Your task to perform on an android device: Open the stopwatch Image 0: 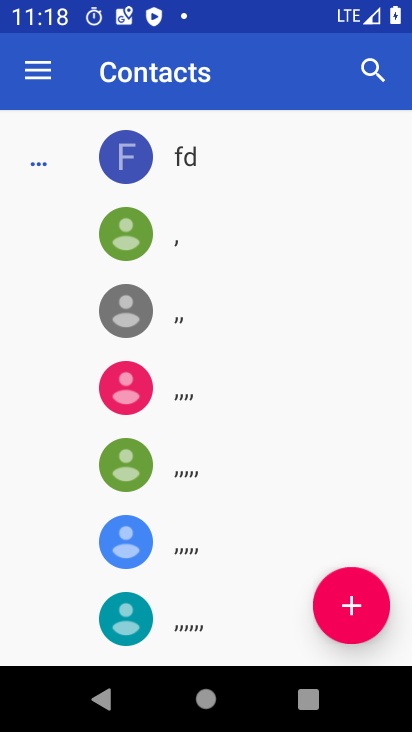
Step 0: press home button
Your task to perform on an android device: Open the stopwatch Image 1: 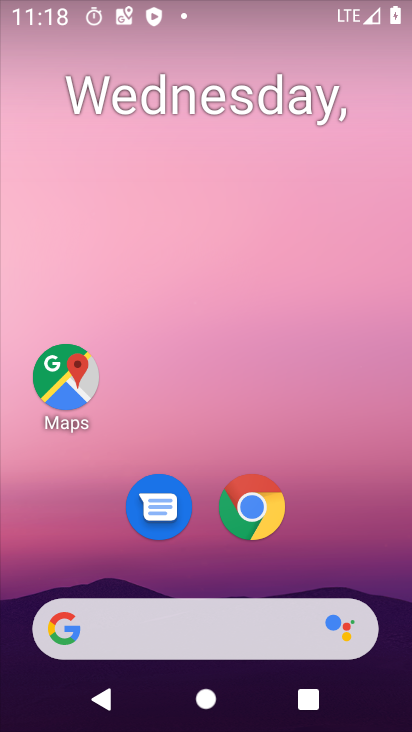
Step 1: drag from (228, 693) to (228, 148)
Your task to perform on an android device: Open the stopwatch Image 2: 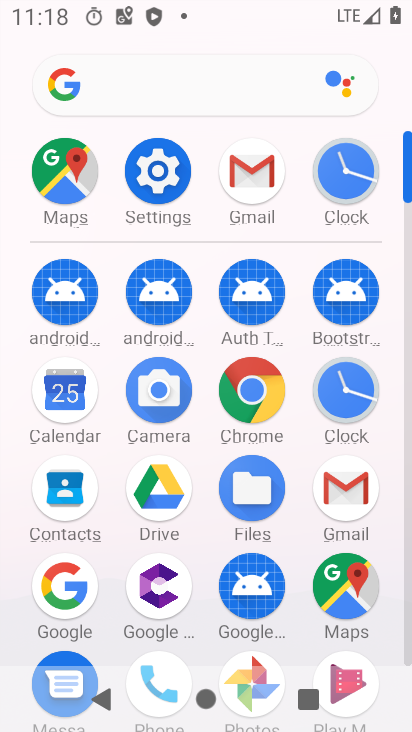
Step 2: click (352, 382)
Your task to perform on an android device: Open the stopwatch Image 3: 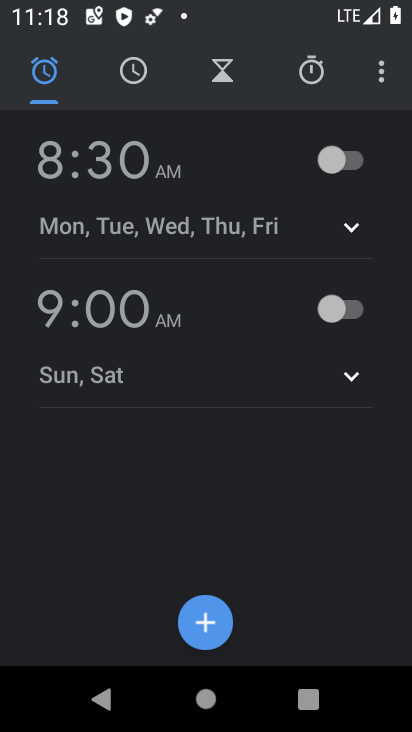
Step 3: click (307, 62)
Your task to perform on an android device: Open the stopwatch Image 4: 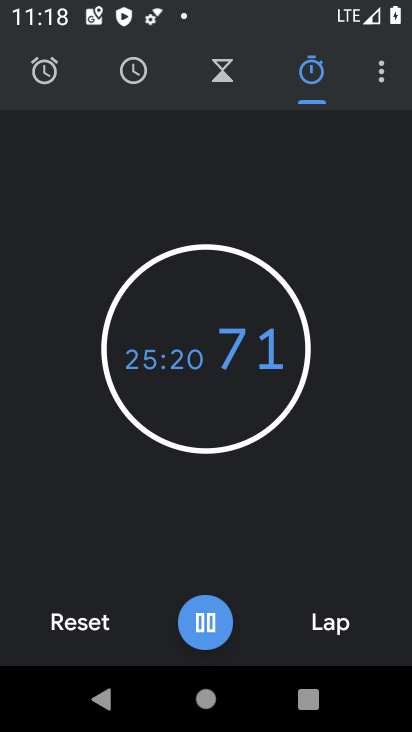
Step 4: task complete